Your task to perform on an android device: Go to privacy settings Image 0: 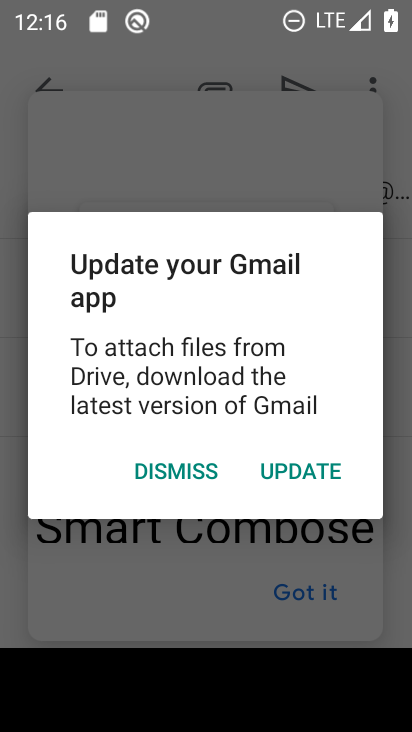
Step 0: press home button
Your task to perform on an android device: Go to privacy settings Image 1: 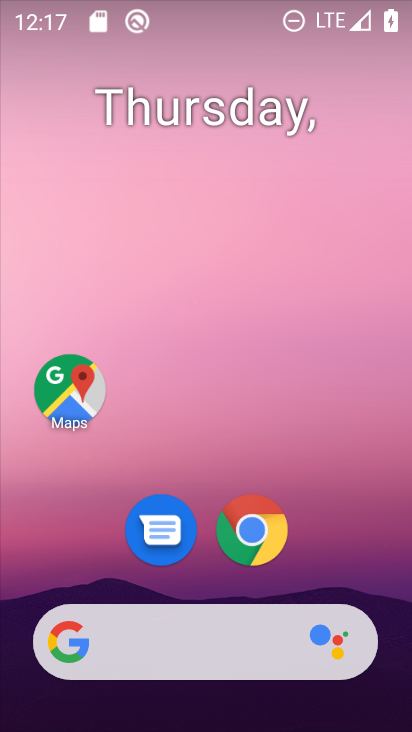
Step 1: drag from (147, 640) to (97, 2)
Your task to perform on an android device: Go to privacy settings Image 2: 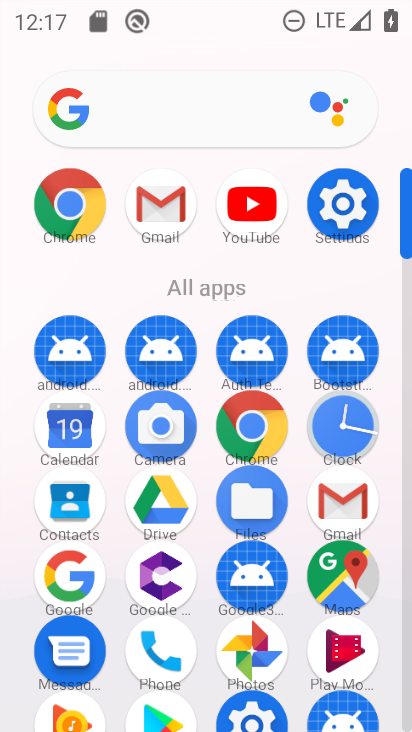
Step 2: click (351, 205)
Your task to perform on an android device: Go to privacy settings Image 3: 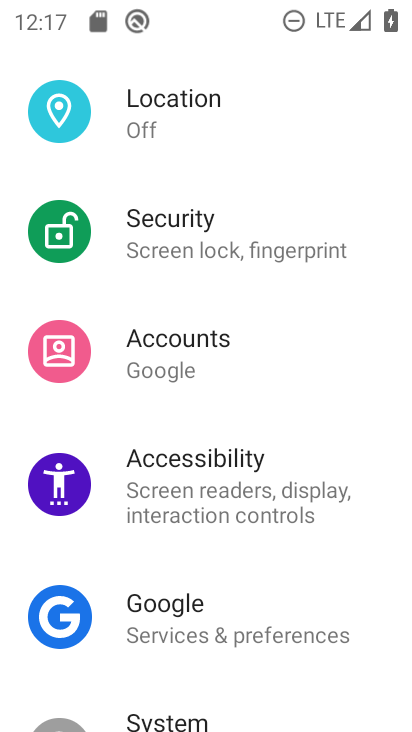
Step 3: drag from (144, 619) to (189, 163)
Your task to perform on an android device: Go to privacy settings Image 4: 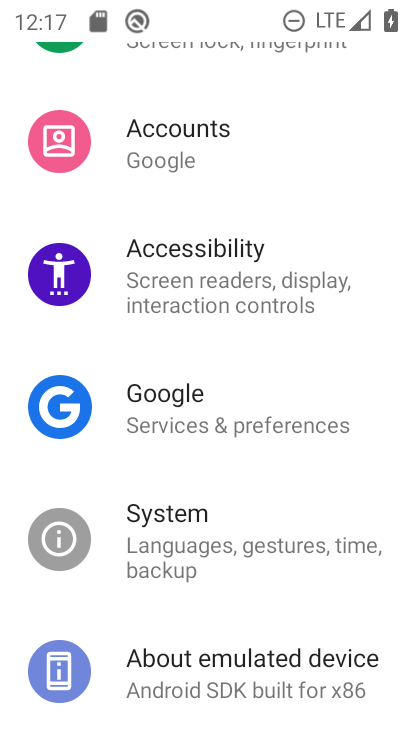
Step 4: drag from (143, 174) to (108, 706)
Your task to perform on an android device: Go to privacy settings Image 5: 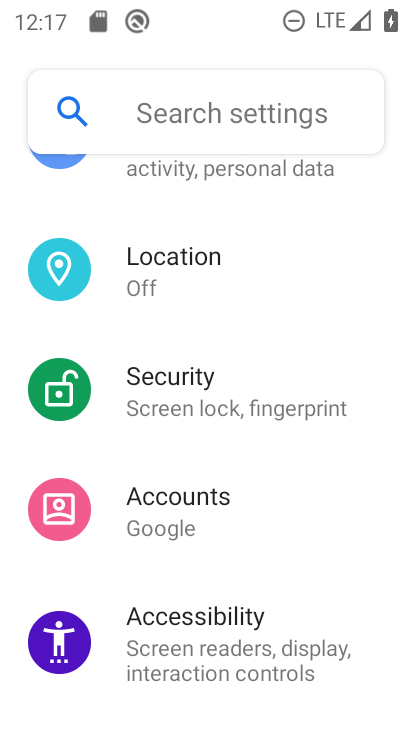
Step 5: drag from (141, 260) to (137, 722)
Your task to perform on an android device: Go to privacy settings Image 6: 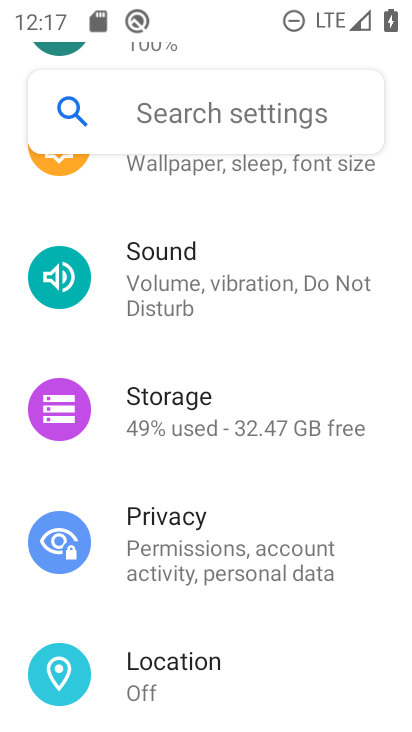
Step 6: click (164, 528)
Your task to perform on an android device: Go to privacy settings Image 7: 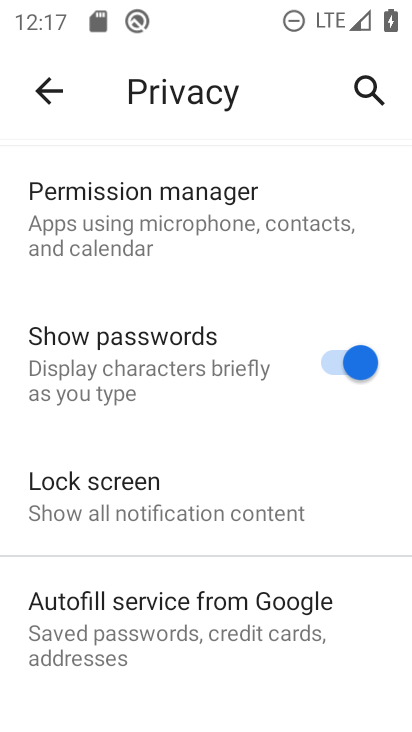
Step 7: task complete